Your task to perform on an android device: Open Google Image 0: 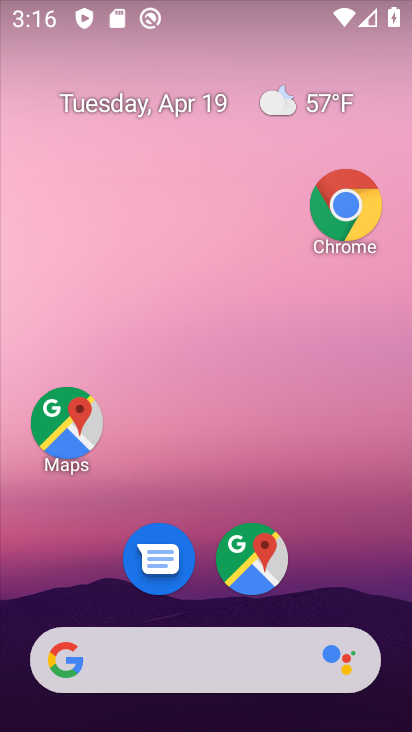
Step 0: drag from (202, 522) to (233, 175)
Your task to perform on an android device: Open Google Image 1: 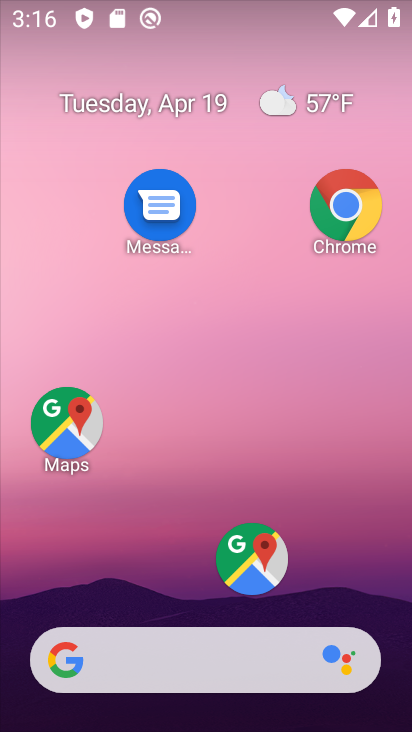
Step 1: drag from (187, 588) to (230, 142)
Your task to perform on an android device: Open Google Image 2: 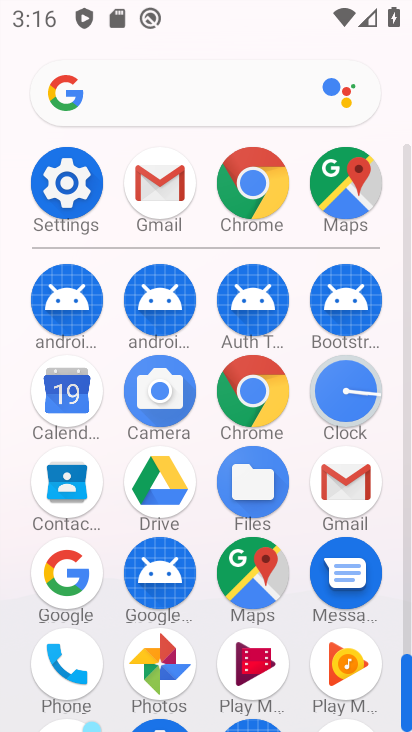
Step 2: click (58, 579)
Your task to perform on an android device: Open Google Image 3: 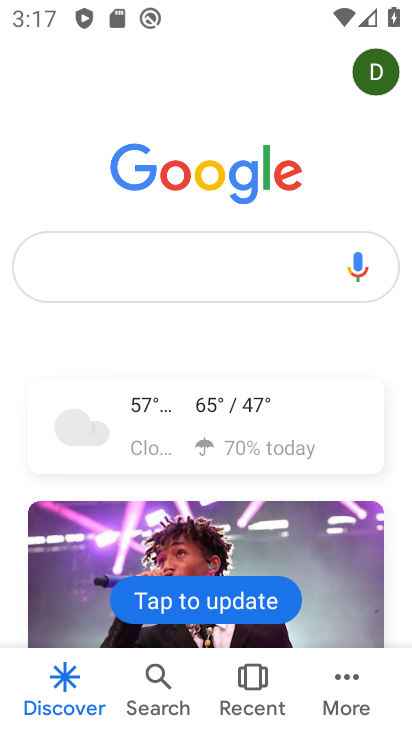
Step 3: task complete